Your task to perform on an android device: open a new tab in the chrome app Image 0: 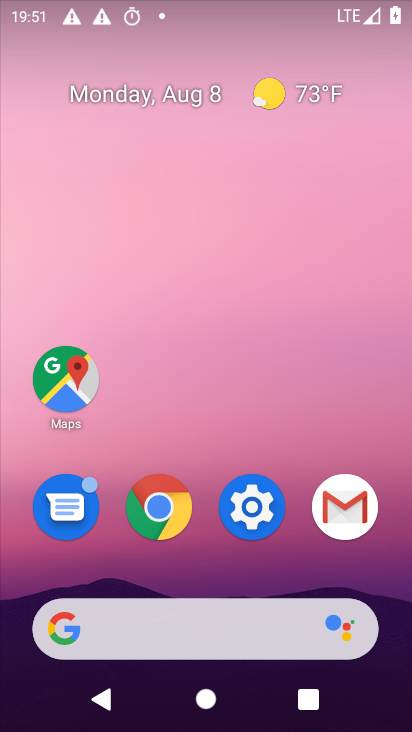
Step 0: drag from (294, 667) to (182, 220)
Your task to perform on an android device: open a new tab in the chrome app Image 1: 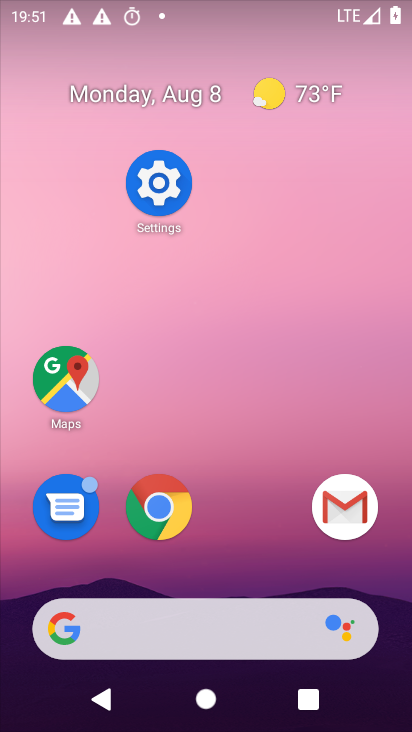
Step 1: drag from (162, 196) to (270, 535)
Your task to perform on an android device: open a new tab in the chrome app Image 2: 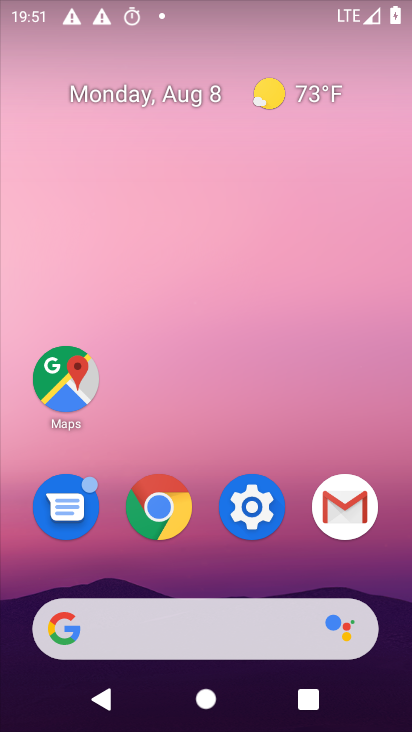
Step 2: click (150, 498)
Your task to perform on an android device: open a new tab in the chrome app Image 3: 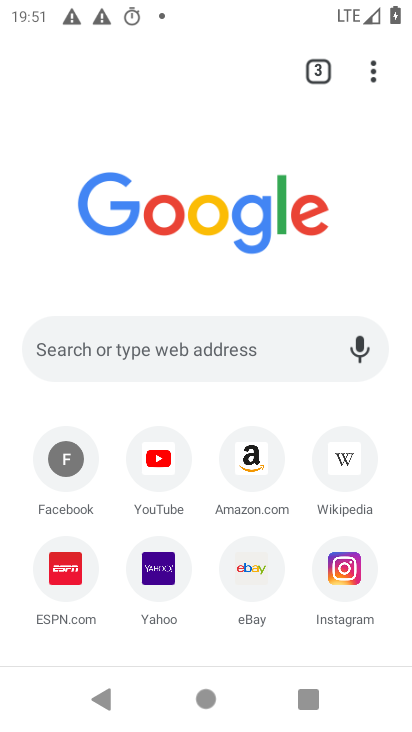
Step 3: click (365, 81)
Your task to perform on an android device: open a new tab in the chrome app Image 4: 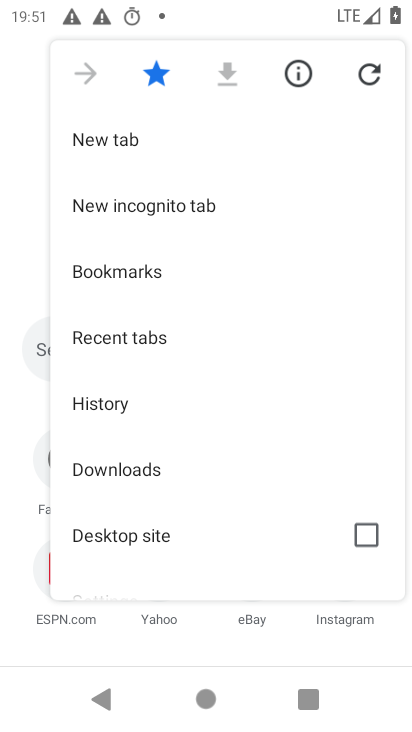
Step 4: click (118, 145)
Your task to perform on an android device: open a new tab in the chrome app Image 5: 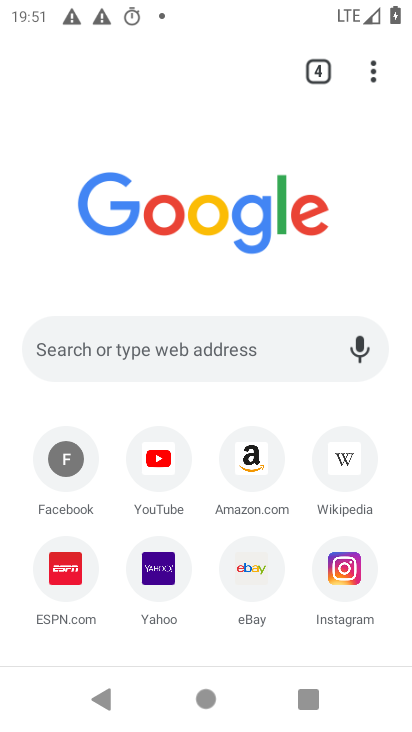
Step 5: task complete